Your task to perform on an android device: Open accessibility settings Image 0: 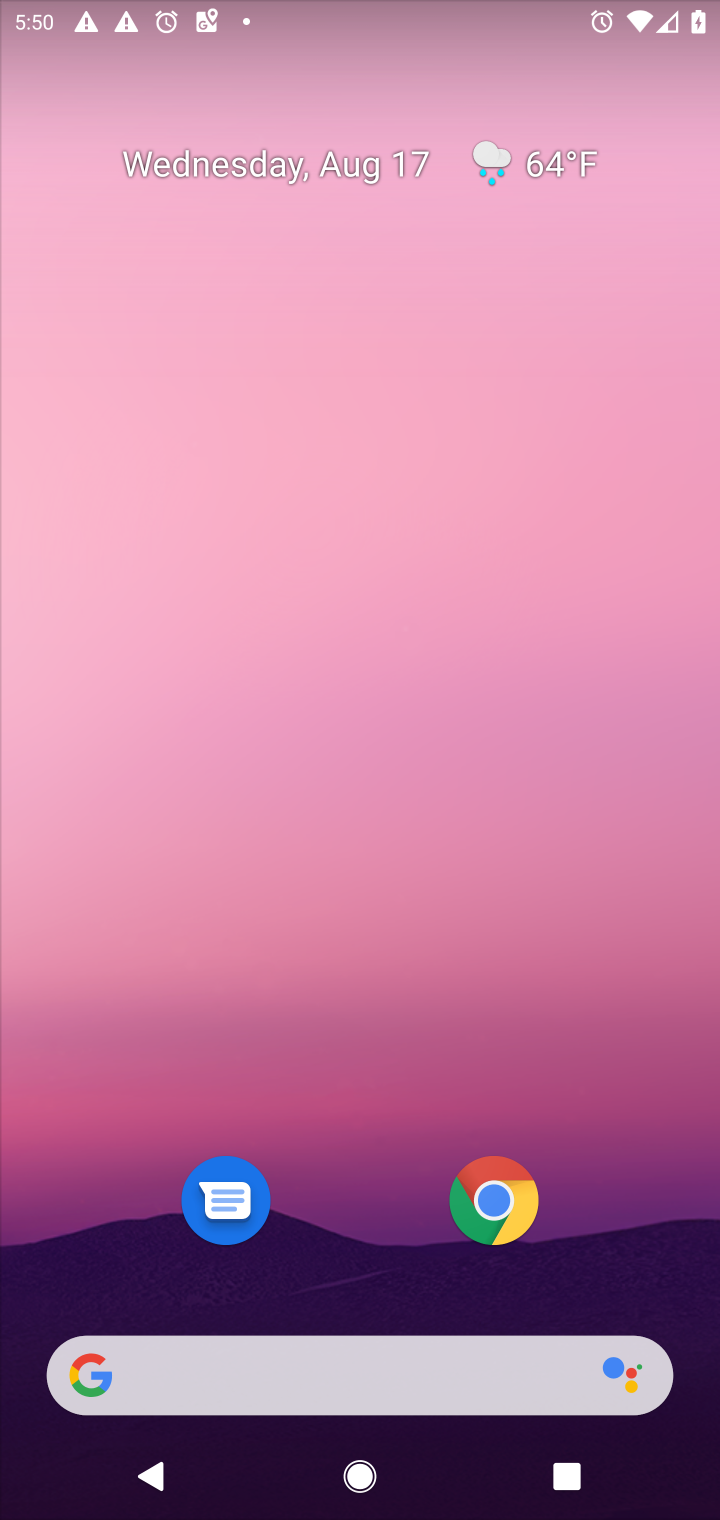
Step 0: drag from (326, 1294) to (319, 211)
Your task to perform on an android device: Open accessibility settings Image 1: 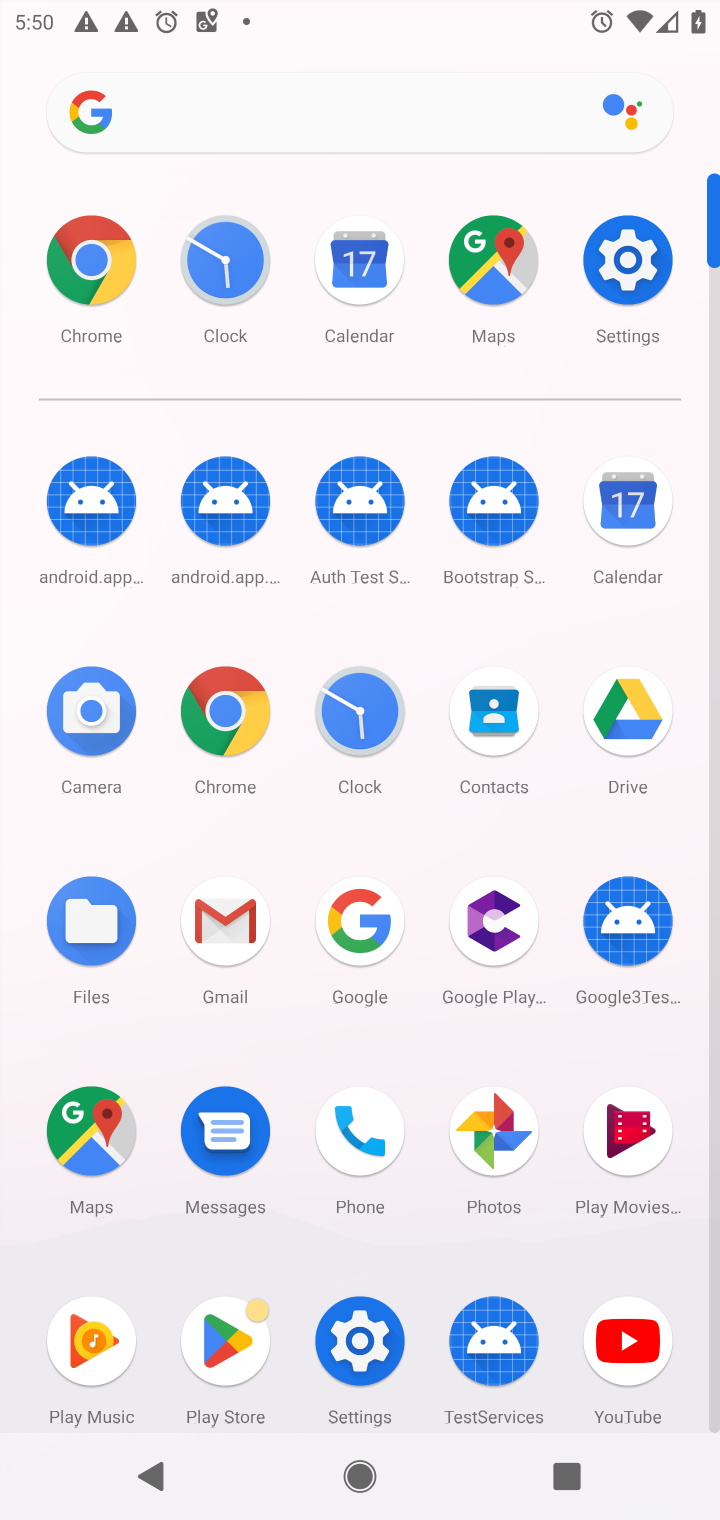
Step 1: click (340, 1357)
Your task to perform on an android device: Open accessibility settings Image 2: 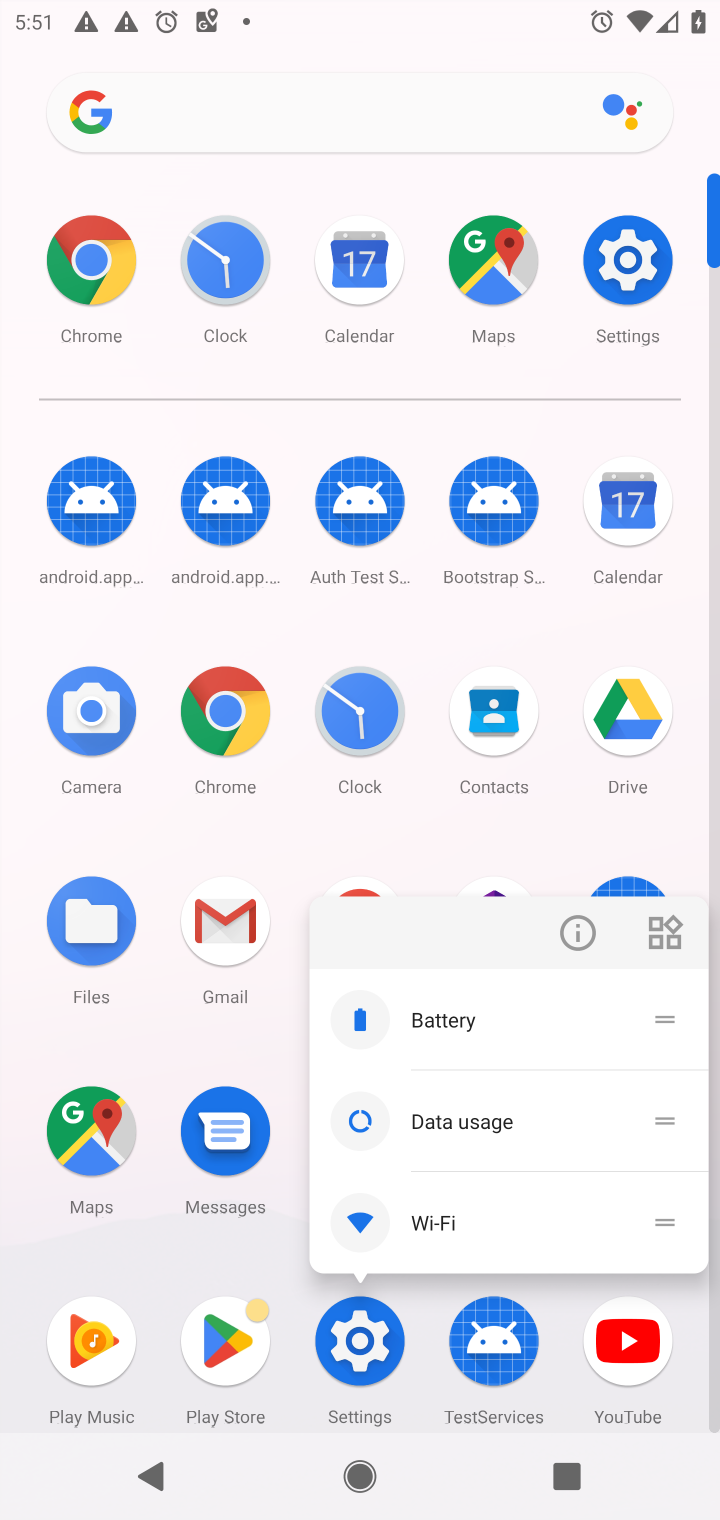
Step 2: click (342, 1346)
Your task to perform on an android device: Open accessibility settings Image 3: 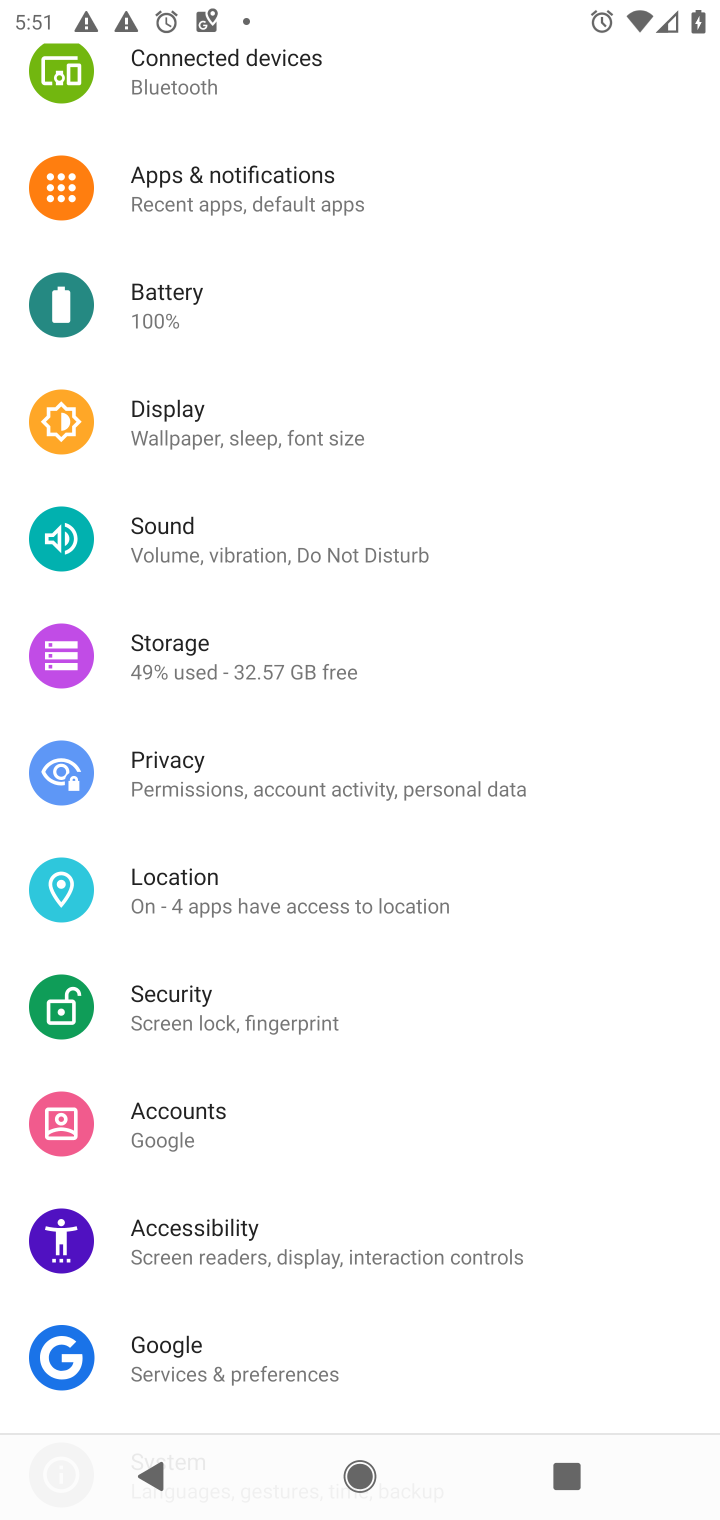
Step 3: click (209, 1248)
Your task to perform on an android device: Open accessibility settings Image 4: 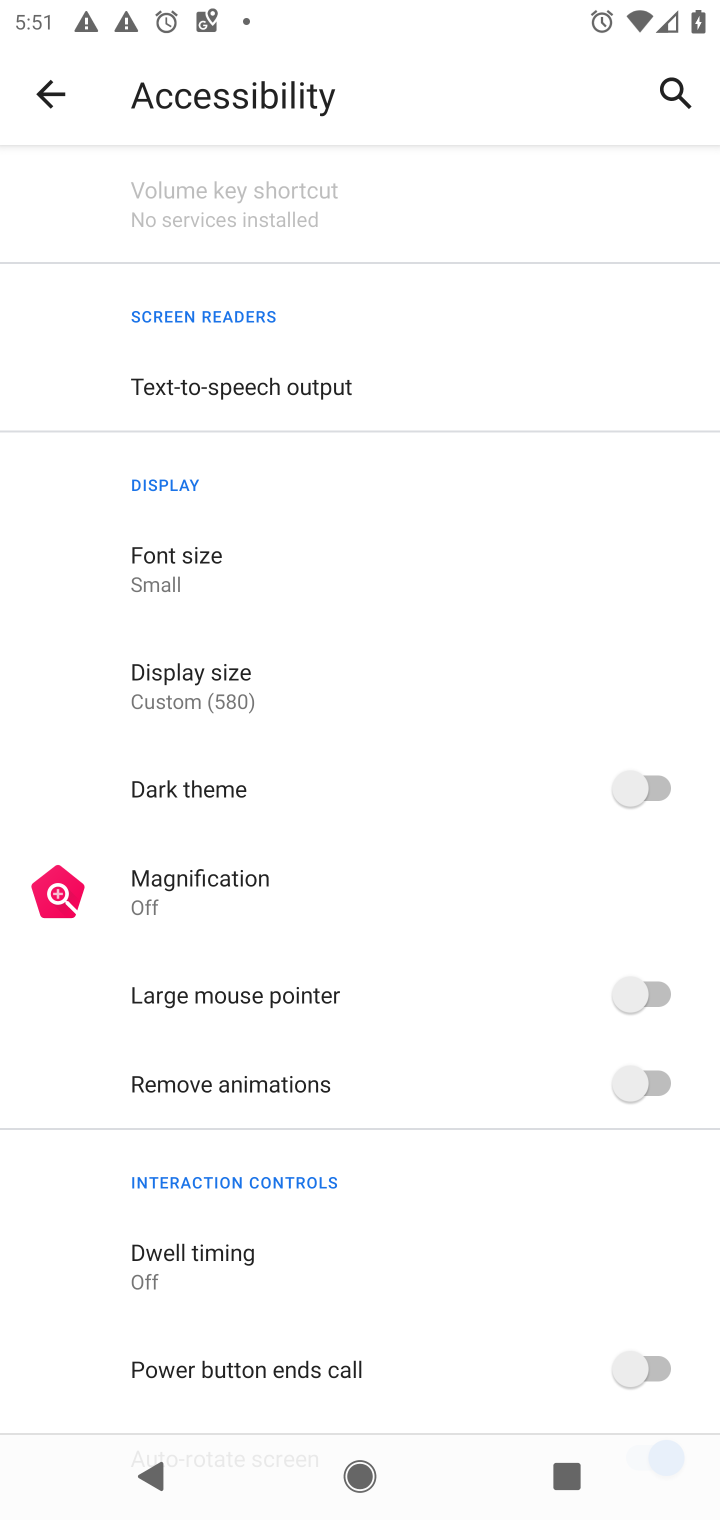
Step 4: task complete